Your task to perform on an android device: change the clock display to analog Image 0: 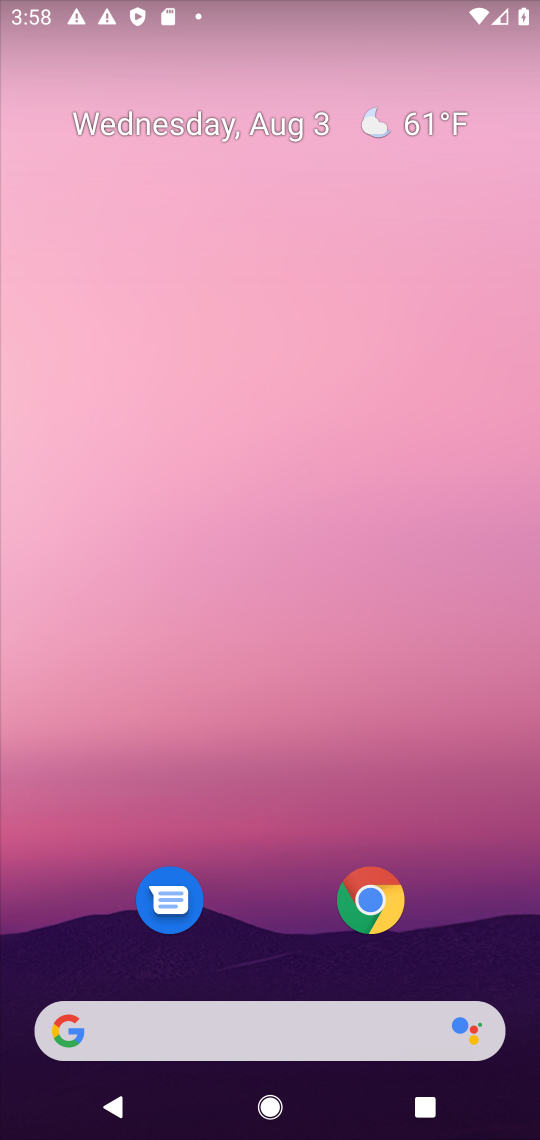
Step 0: drag from (519, 930) to (470, 177)
Your task to perform on an android device: change the clock display to analog Image 1: 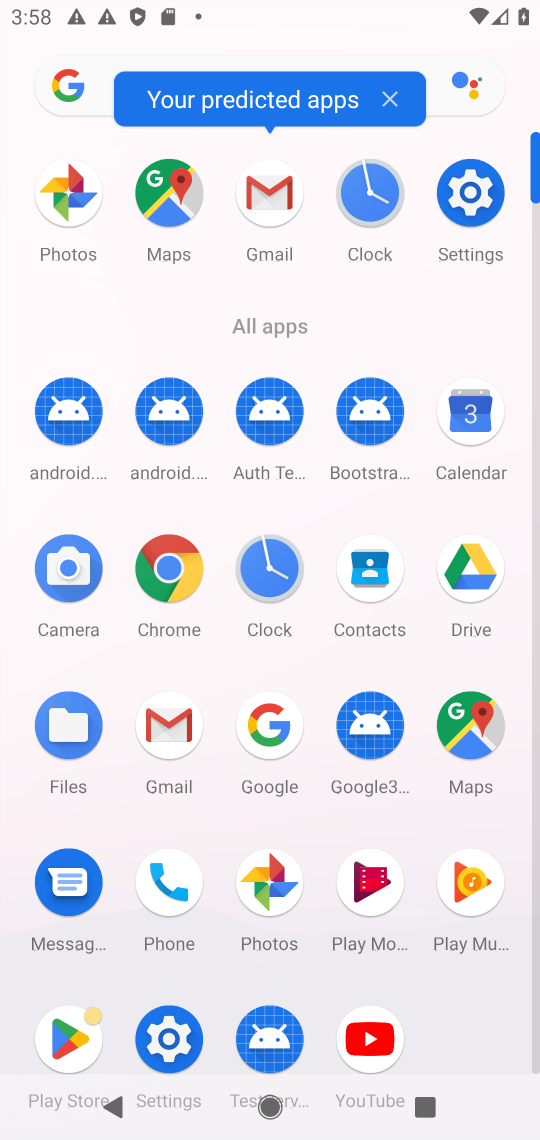
Step 1: click (270, 560)
Your task to perform on an android device: change the clock display to analog Image 2: 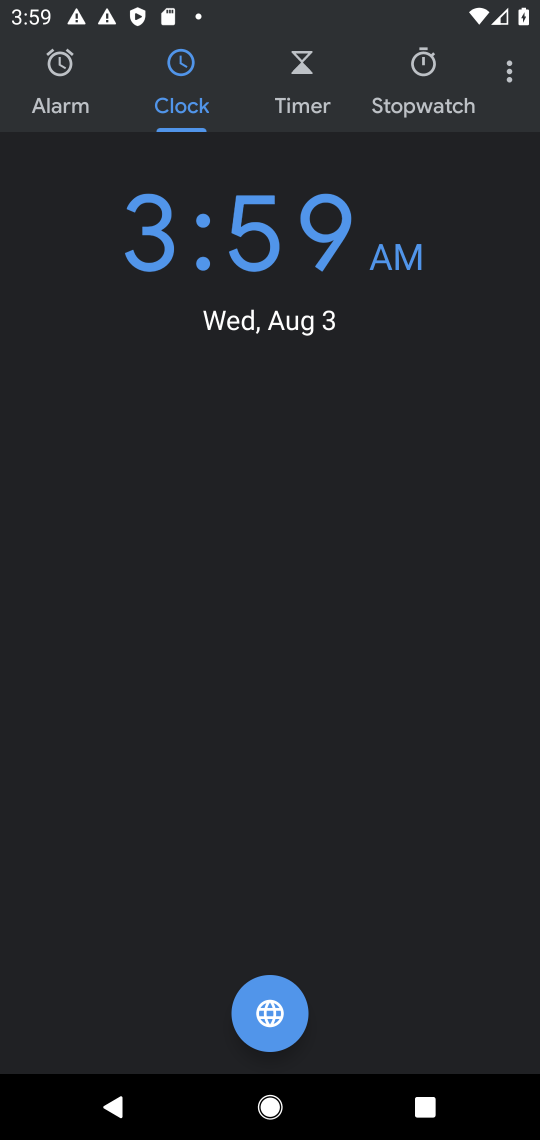
Step 2: click (506, 65)
Your task to perform on an android device: change the clock display to analog Image 3: 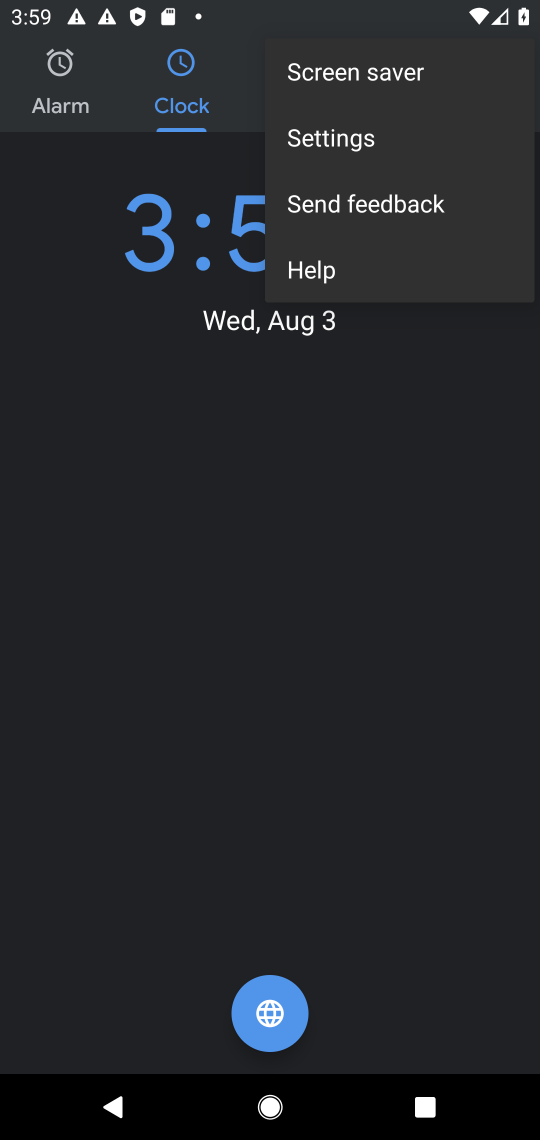
Step 3: click (378, 151)
Your task to perform on an android device: change the clock display to analog Image 4: 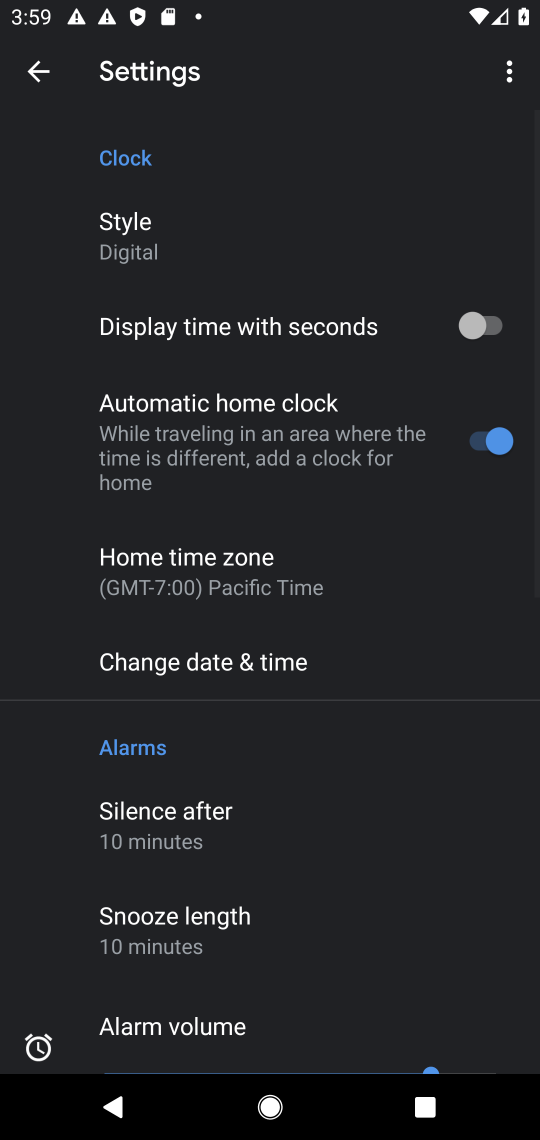
Step 4: click (289, 227)
Your task to perform on an android device: change the clock display to analog Image 5: 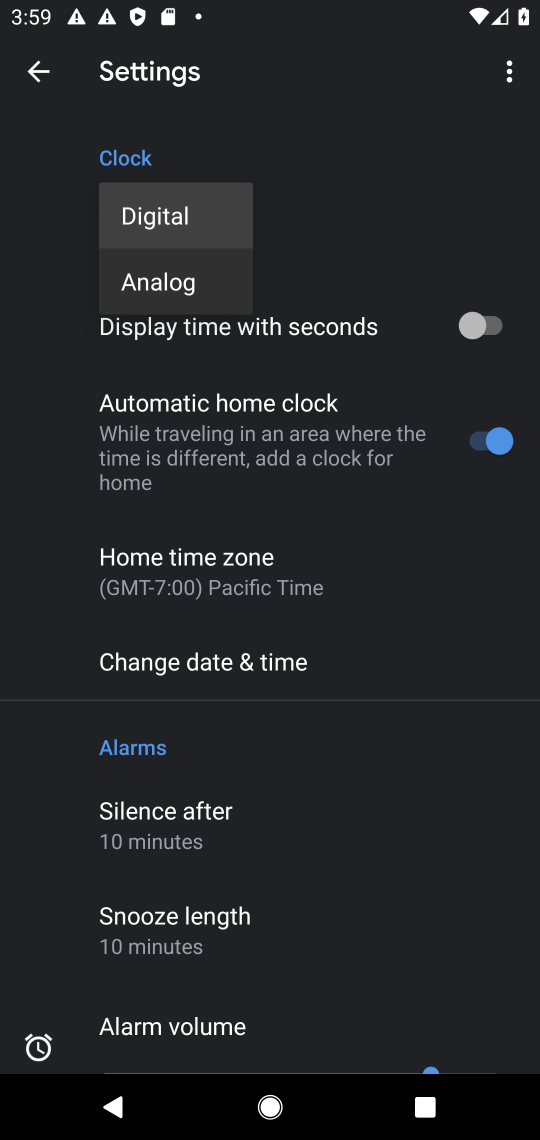
Step 5: click (158, 279)
Your task to perform on an android device: change the clock display to analog Image 6: 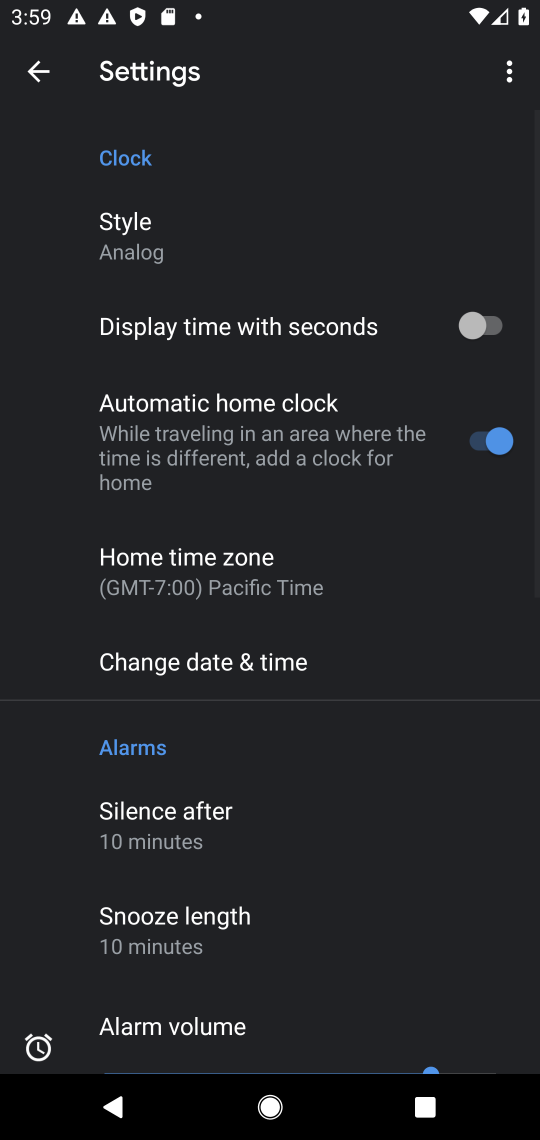
Step 6: task complete